Your task to perform on an android device: manage bookmarks in the chrome app Image 0: 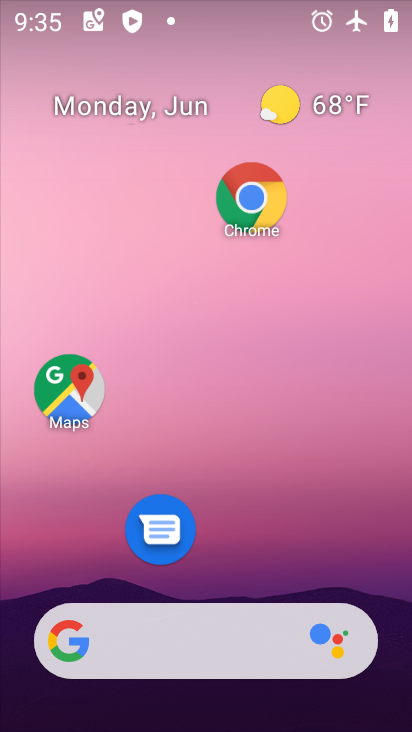
Step 0: click (253, 186)
Your task to perform on an android device: manage bookmarks in the chrome app Image 1: 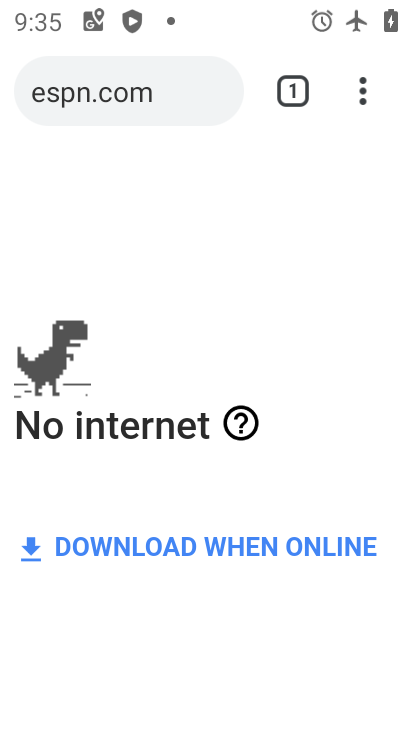
Step 1: click (352, 99)
Your task to perform on an android device: manage bookmarks in the chrome app Image 2: 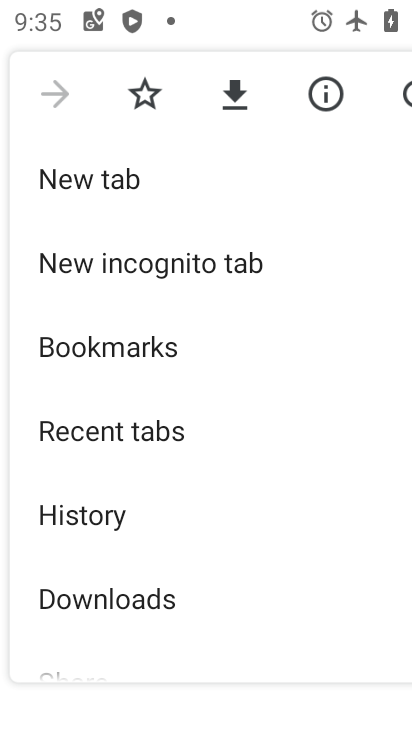
Step 2: click (131, 333)
Your task to perform on an android device: manage bookmarks in the chrome app Image 3: 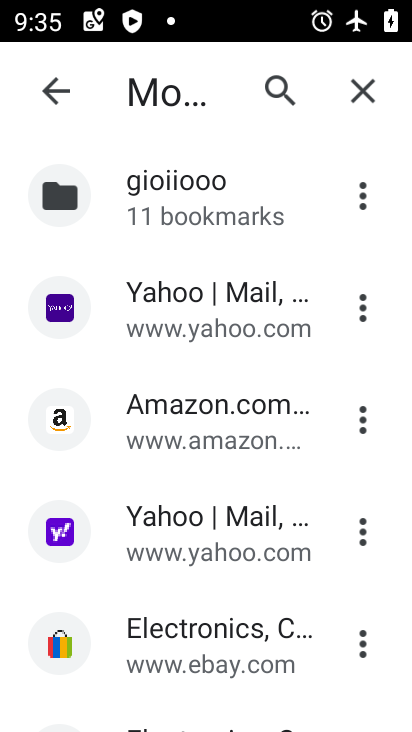
Step 3: click (360, 414)
Your task to perform on an android device: manage bookmarks in the chrome app Image 4: 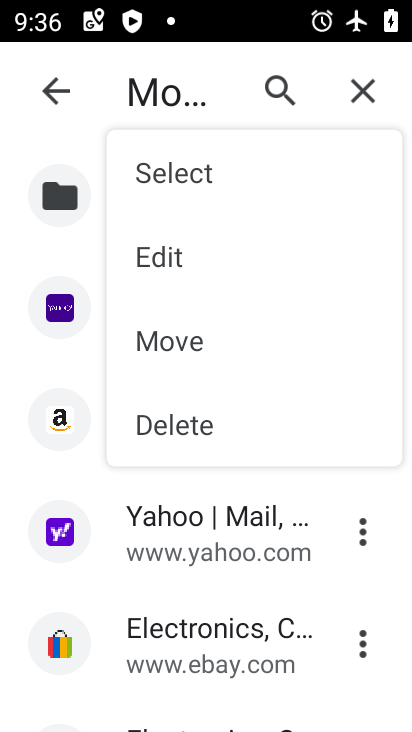
Step 4: click (217, 415)
Your task to perform on an android device: manage bookmarks in the chrome app Image 5: 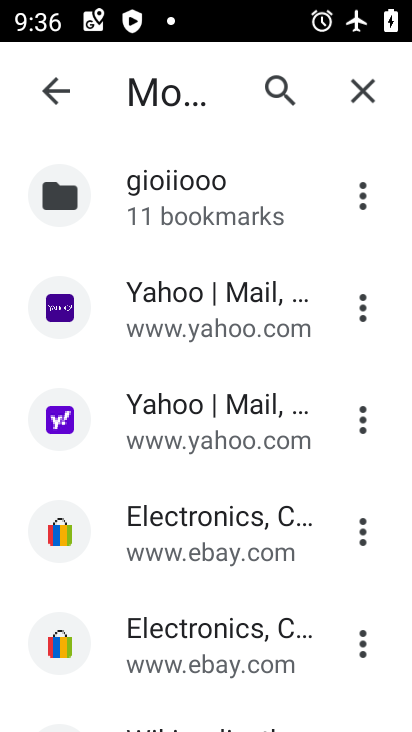
Step 5: task complete